Your task to perform on an android device: toggle notifications settings in the gmail app Image 0: 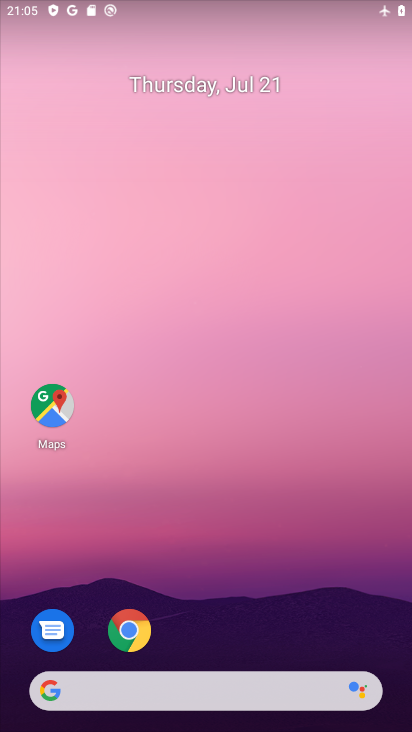
Step 0: drag from (302, 442) to (392, 54)
Your task to perform on an android device: toggle notifications settings in the gmail app Image 1: 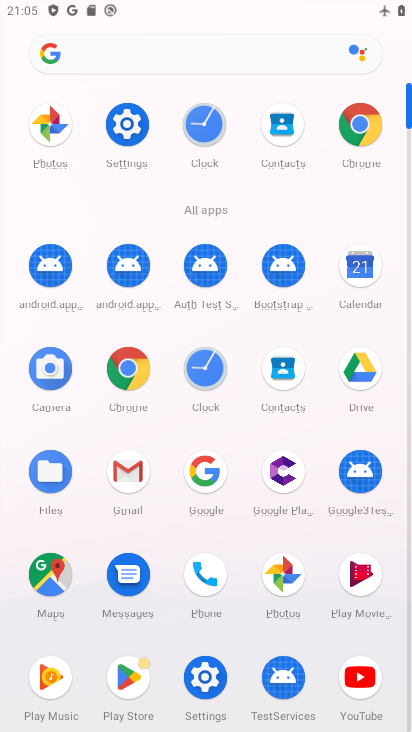
Step 1: click (126, 465)
Your task to perform on an android device: toggle notifications settings in the gmail app Image 2: 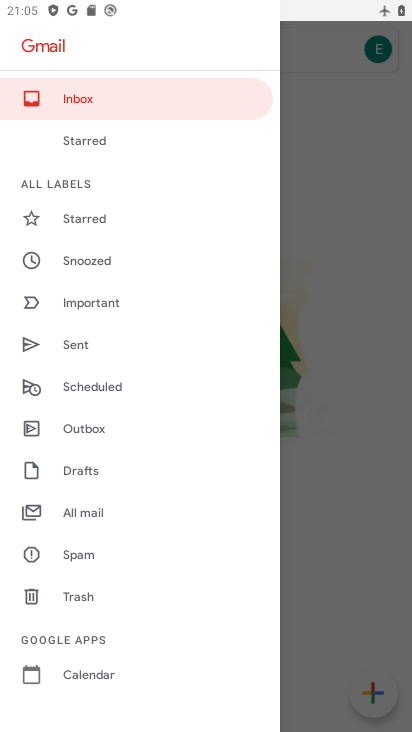
Step 2: drag from (79, 646) to (152, 212)
Your task to perform on an android device: toggle notifications settings in the gmail app Image 3: 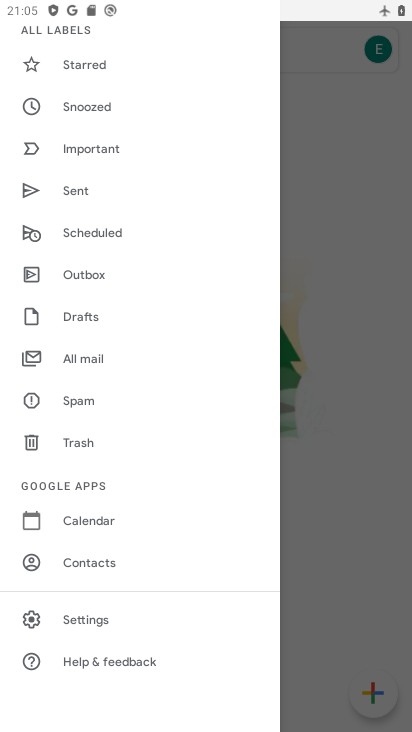
Step 3: click (79, 618)
Your task to perform on an android device: toggle notifications settings in the gmail app Image 4: 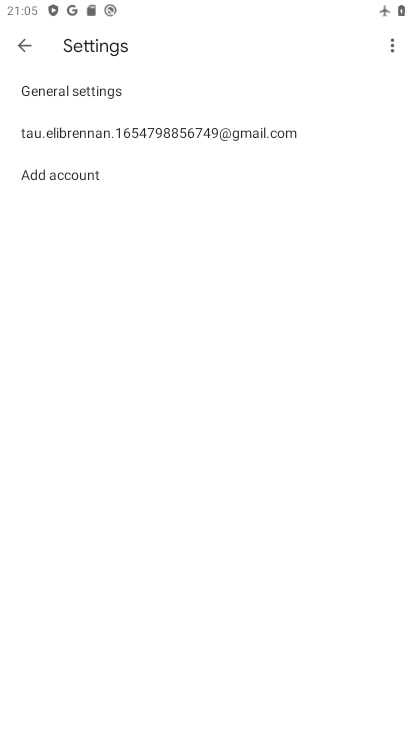
Step 4: click (117, 130)
Your task to perform on an android device: toggle notifications settings in the gmail app Image 5: 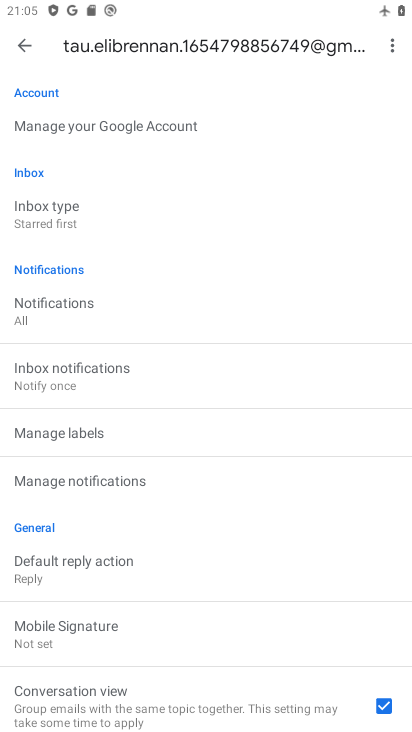
Step 5: click (125, 477)
Your task to perform on an android device: toggle notifications settings in the gmail app Image 6: 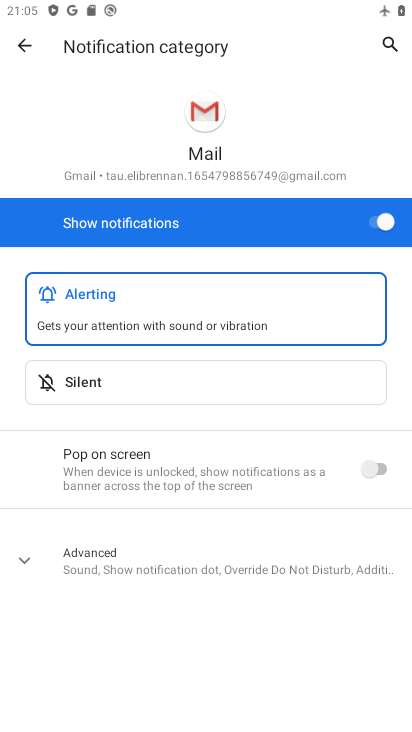
Step 6: click (378, 210)
Your task to perform on an android device: toggle notifications settings in the gmail app Image 7: 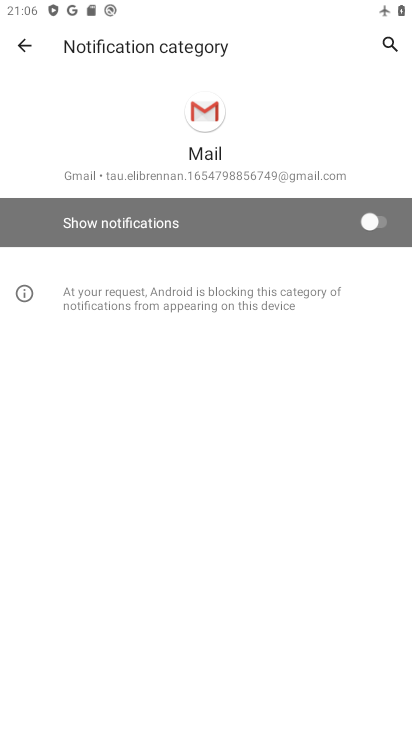
Step 7: task complete